Your task to perform on an android device: Go to CNN.com Image 0: 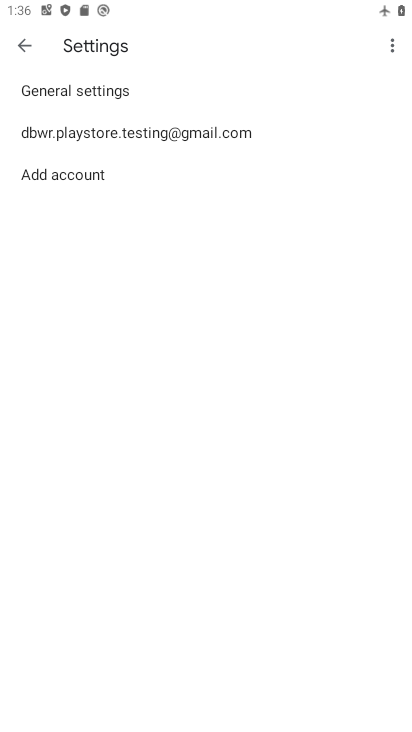
Step 0: press home button
Your task to perform on an android device: Go to CNN.com Image 1: 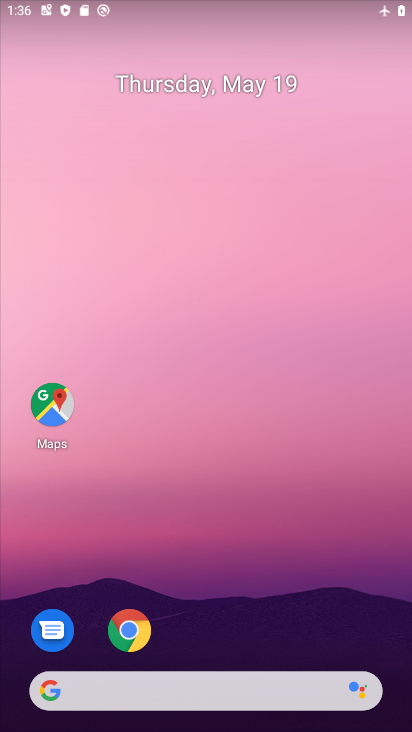
Step 1: click (119, 638)
Your task to perform on an android device: Go to CNN.com Image 2: 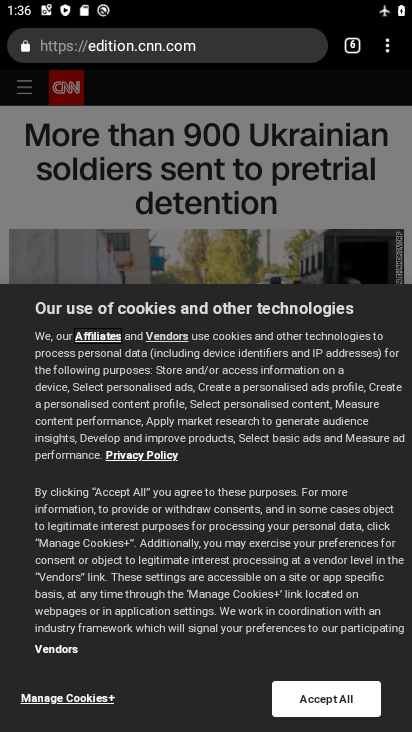
Step 2: click (337, 50)
Your task to perform on an android device: Go to CNN.com Image 3: 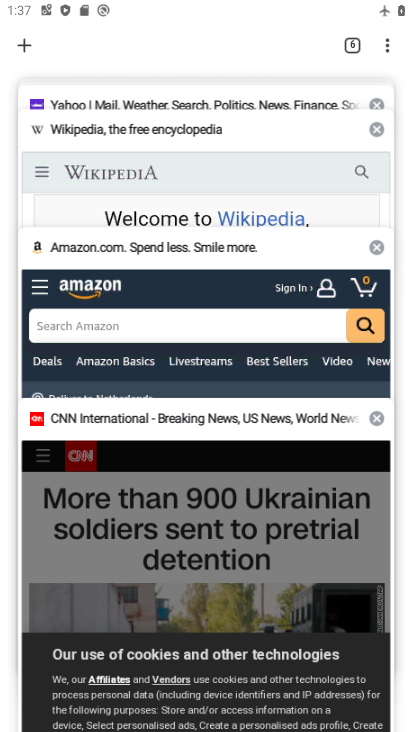
Step 3: click (83, 481)
Your task to perform on an android device: Go to CNN.com Image 4: 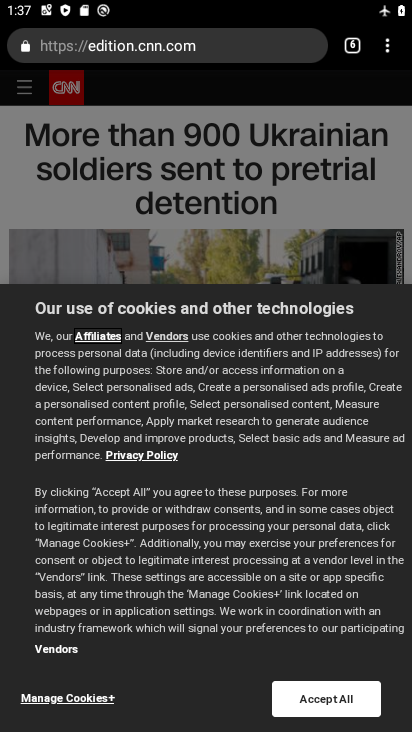
Step 4: click (327, 707)
Your task to perform on an android device: Go to CNN.com Image 5: 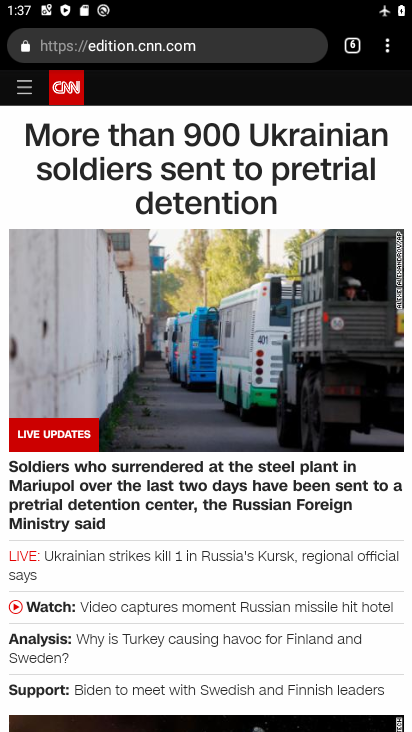
Step 5: task complete